Your task to perform on an android device: delete the emails in spam in the gmail app Image 0: 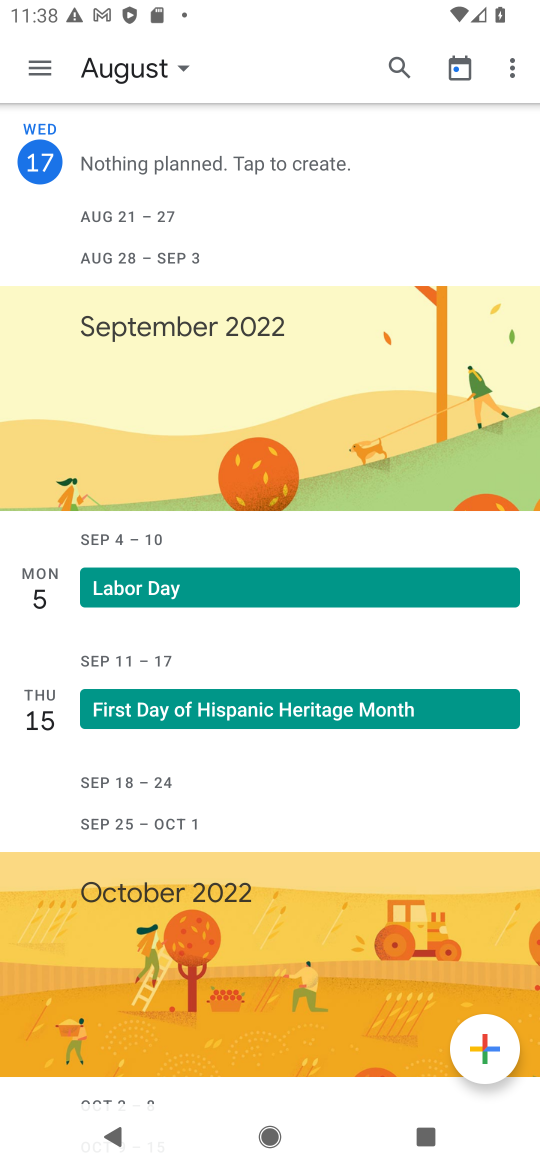
Step 0: press home button
Your task to perform on an android device: delete the emails in spam in the gmail app Image 1: 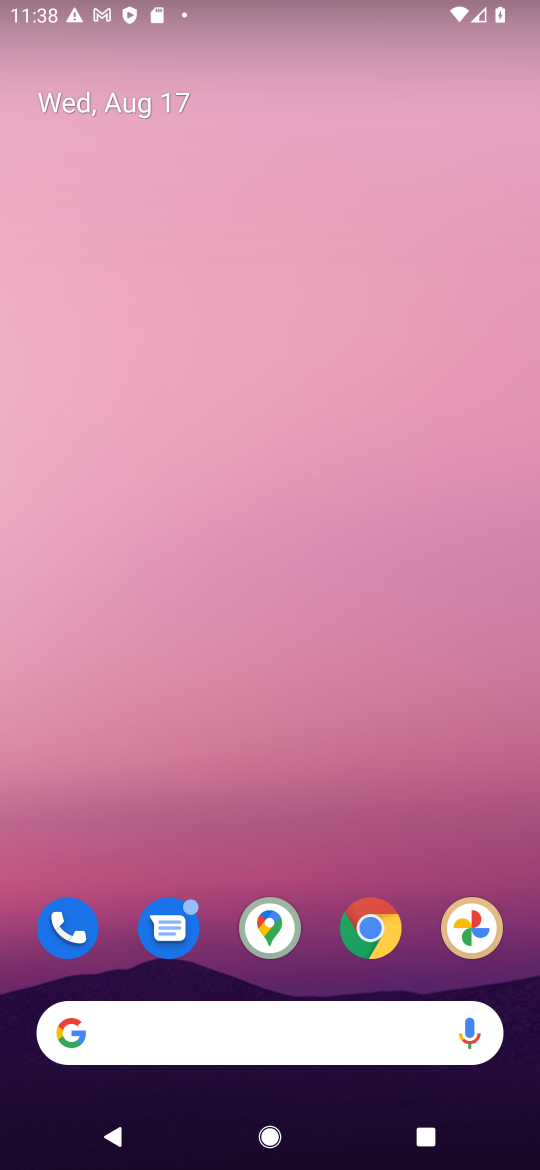
Step 1: drag from (260, 850) to (285, 202)
Your task to perform on an android device: delete the emails in spam in the gmail app Image 2: 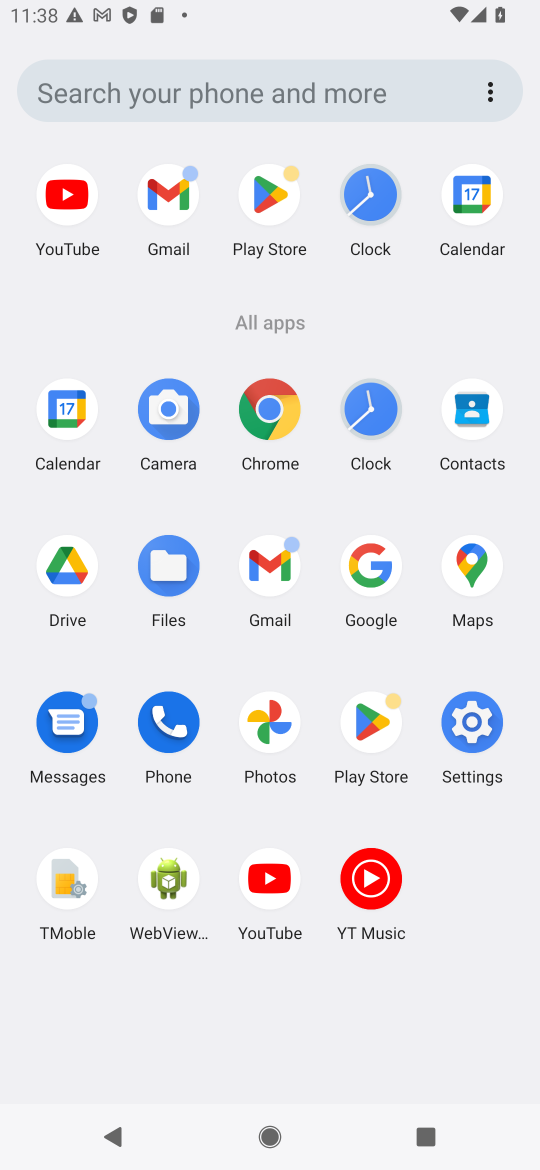
Step 2: click (176, 203)
Your task to perform on an android device: delete the emails in spam in the gmail app Image 3: 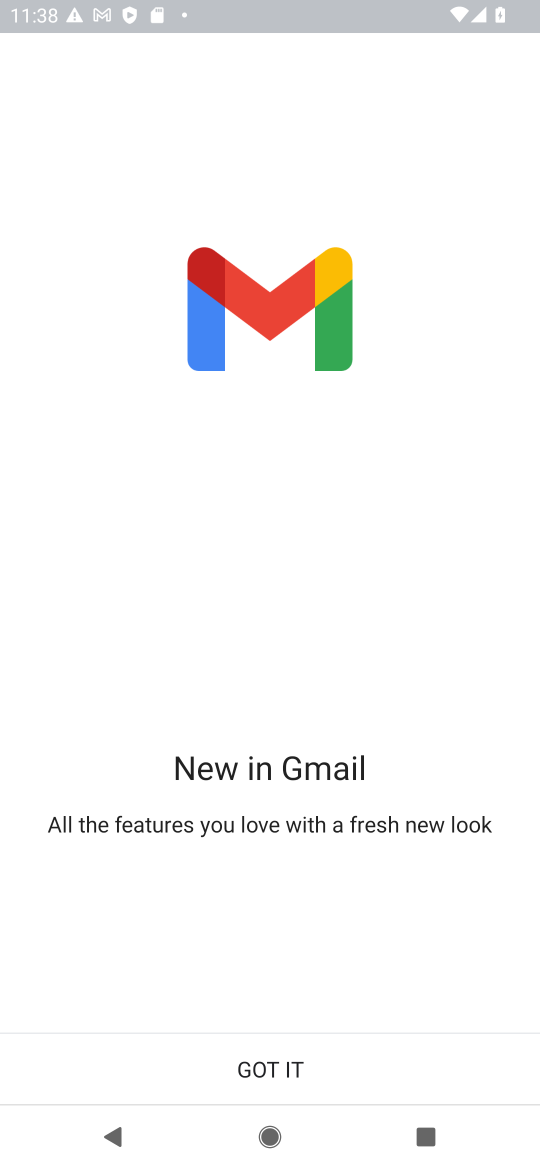
Step 3: click (285, 1058)
Your task to perform on an android device: delete the emails in spam in the gmail app Image 4: 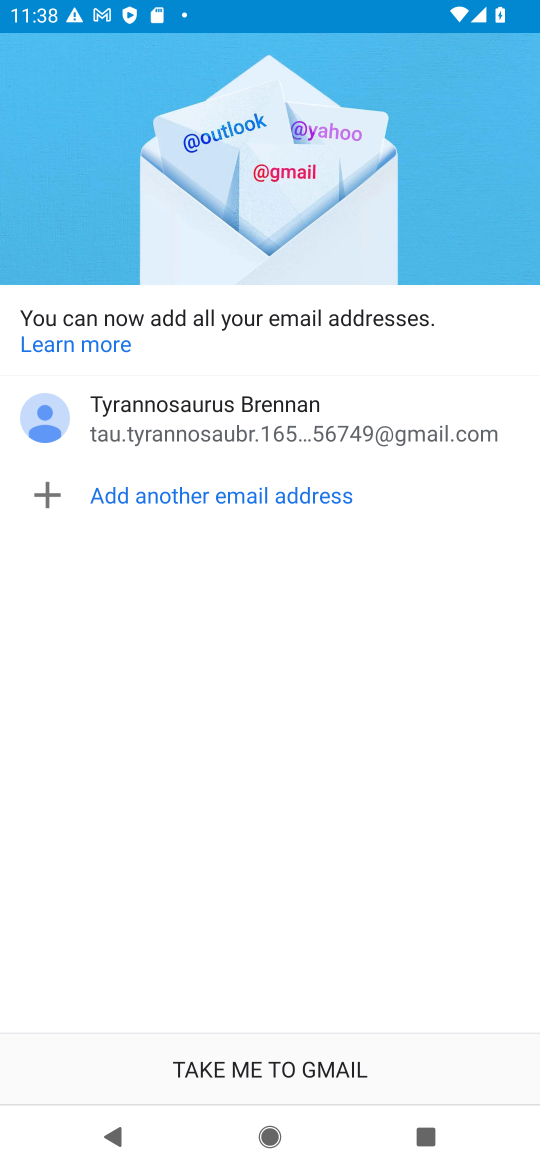
Step 4: click (285, 1058)
Your task to perform on an android device: delete the emails in spam in the gmail app Image 5: 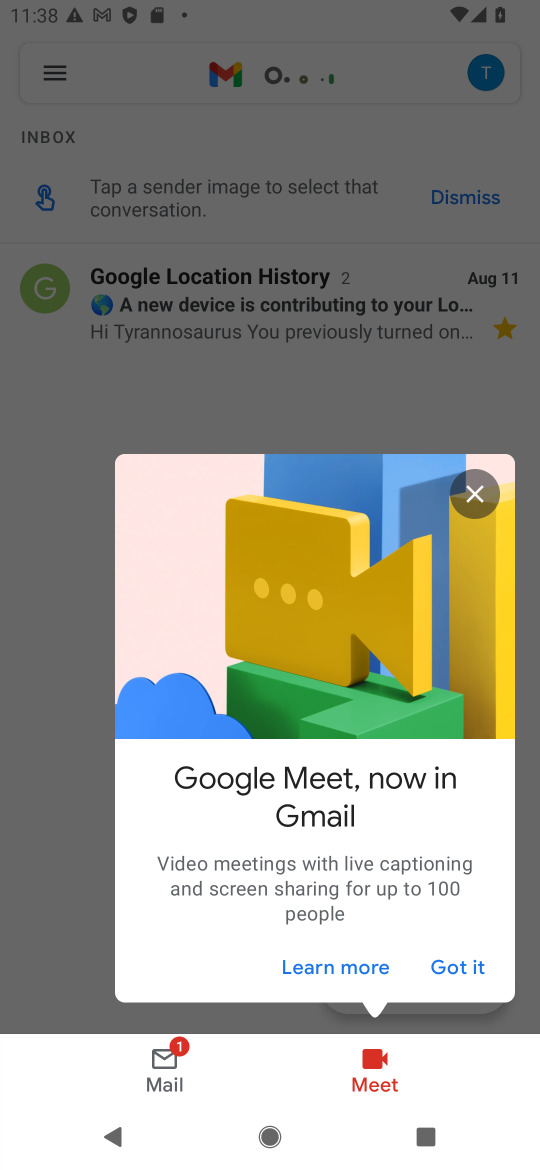
Step 5: click (429, 970)
Your task to perform on an android device: delete the emails in spam in the gmail app Image 6: 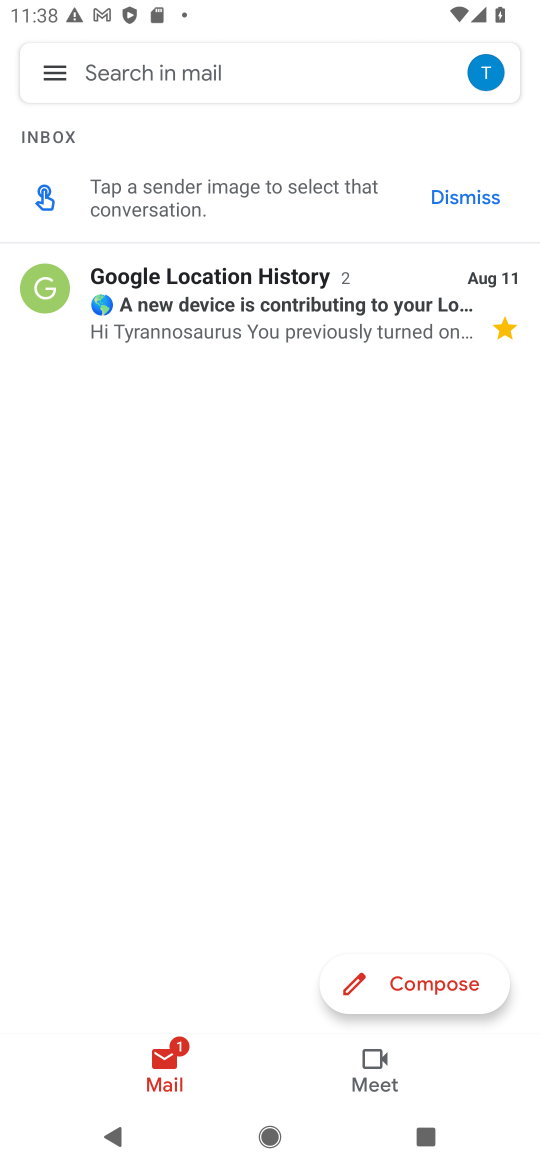
Step 6: click (48, 74)
Your task to perform on an android device: delete the emails in spam in the gmail app Image 7: 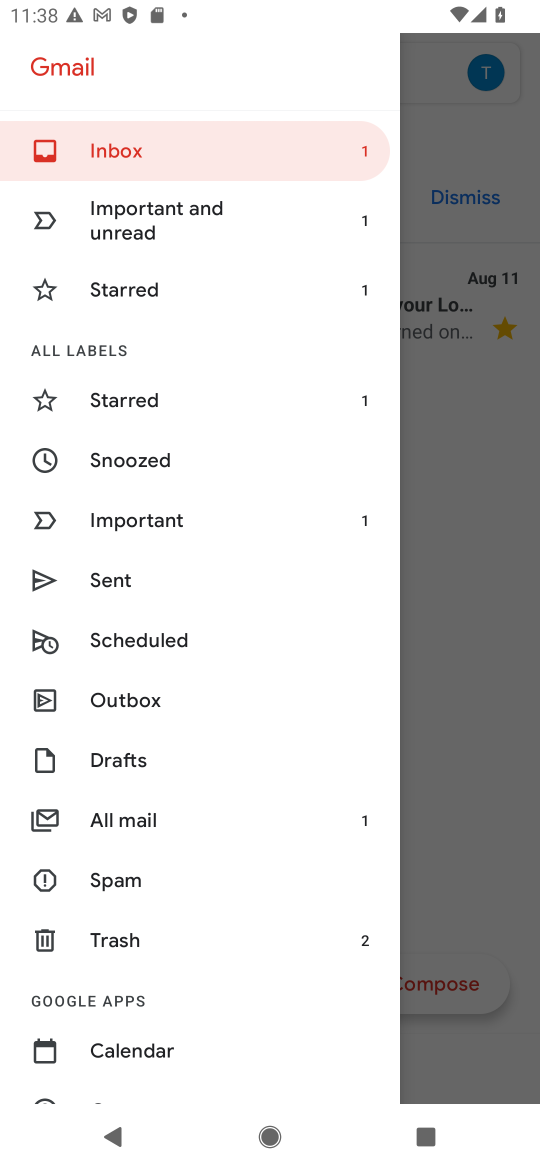
Step 7: click (170, 877)
Your task to perform on an android device: delete the emails in spam in the gmail app Image 8: 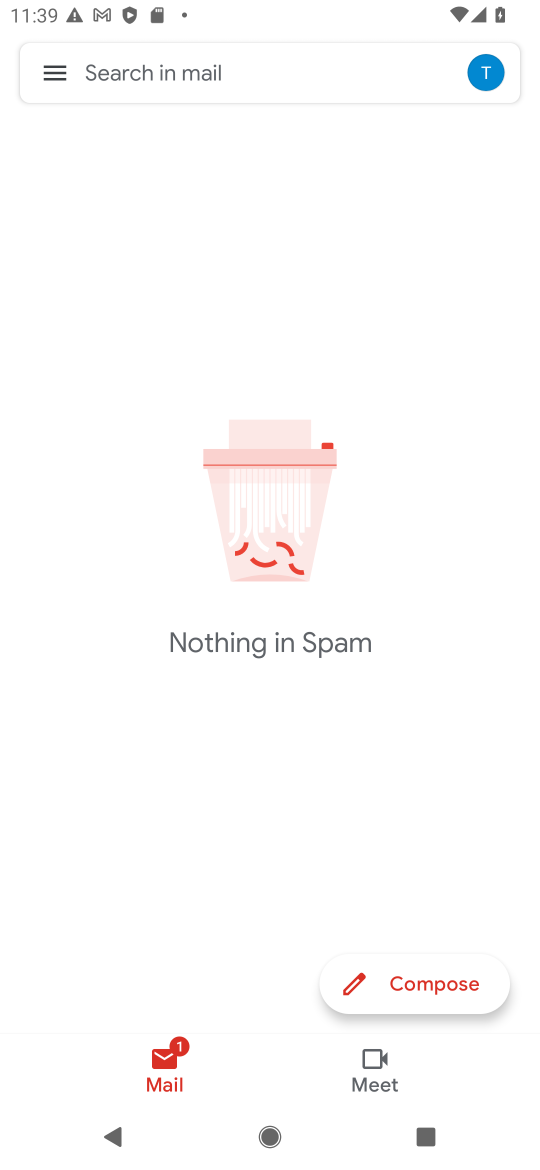
Step 8: task complete